Your task to perform on an android device: star an email in the gmail app Image 0: 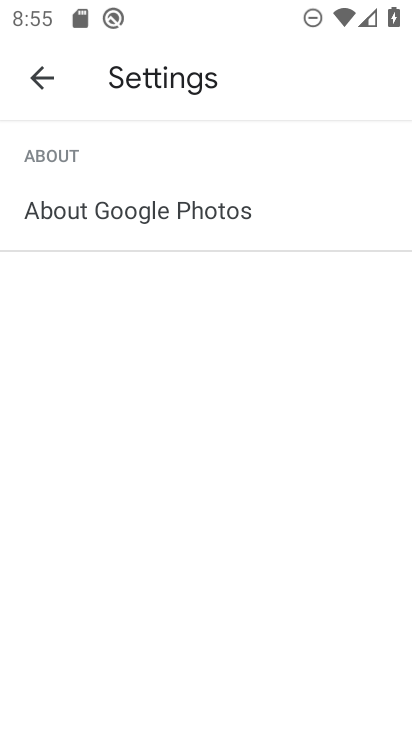
Step 0: press back button
Your task to perform on an android device: star an email in the gmail app Image 1: 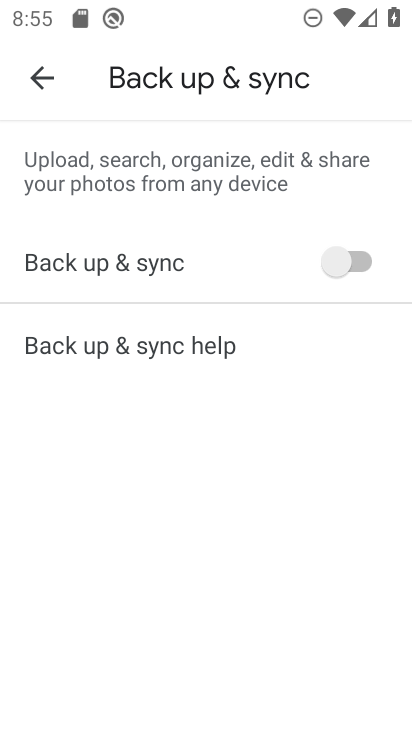
Step 1: press back button
Your task to perform on an android device: star an email in the gmail app Image 2: 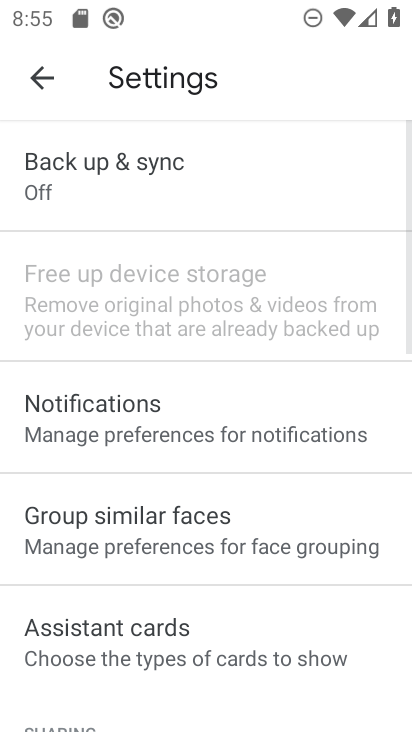
Step 2: press back button
Your task to perform on an android device: star an email in the gmail app Image 3: 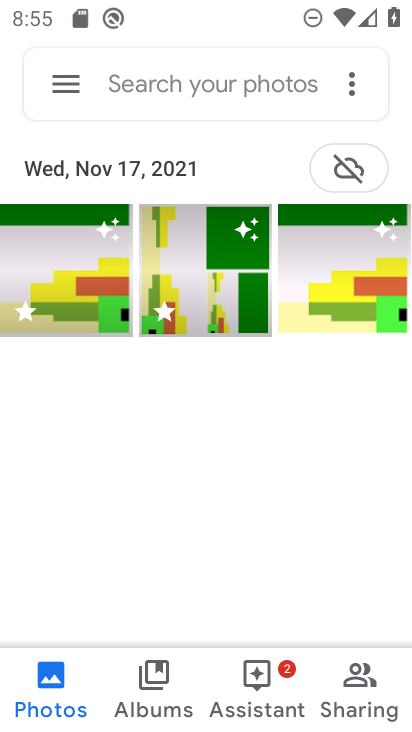
Step 3: press back button
Your task to perform on an android device: star an email in the gmail app Image 4: 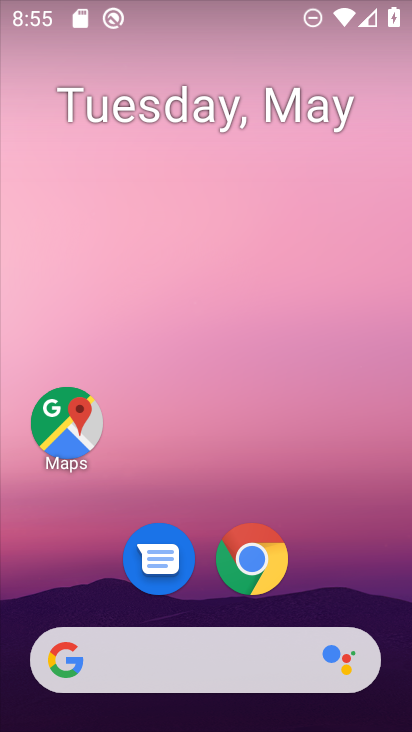
Step 4: drag from (209, 596) to (273, 8)
Your task to perform on an android device: star an email in the gmail app Image 5: 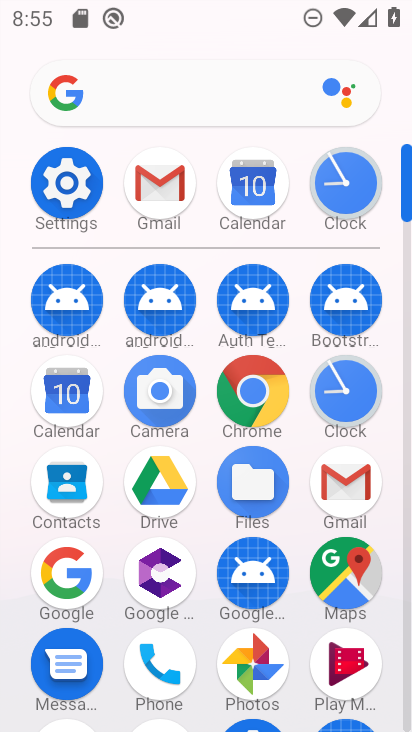
Step 5: click (154, 183)
Your task to perform on an android device: star an email in the gmail app Image 6: 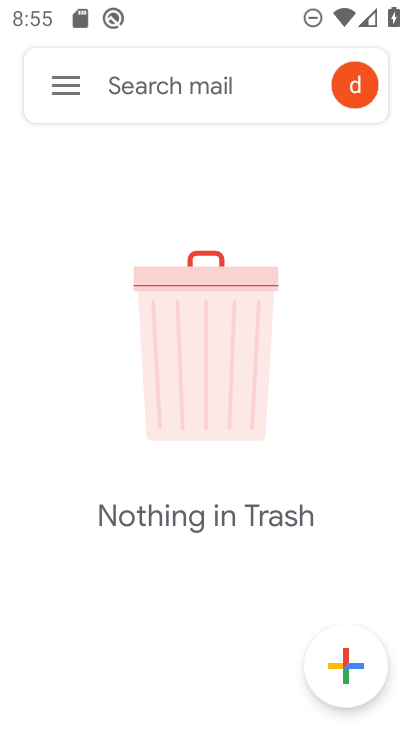
Step 6: click (60, 79)
Your task to perform on an android device: star an email in the gmail app Image 7: 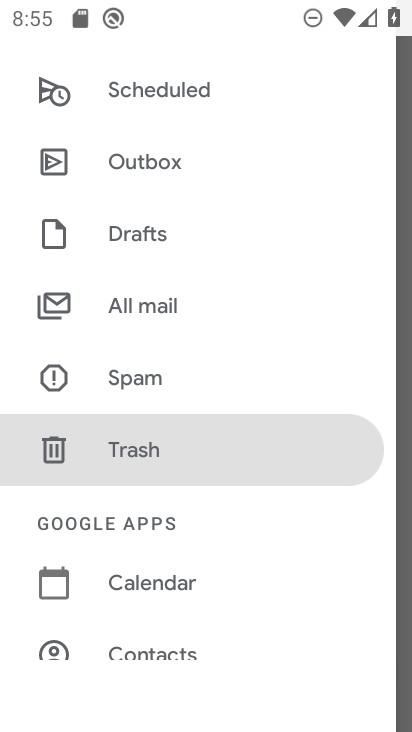
Step 7: click (147, 312)
Your task to perform on an android device: star an email in the gmail app Image 8: 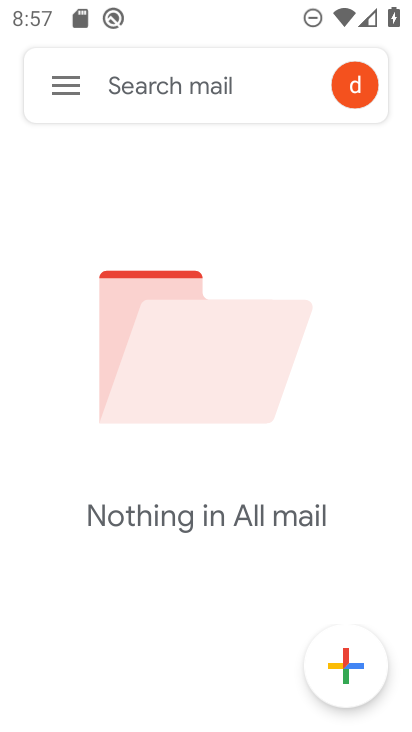
Step 8: task complete